Your task to perform on an android device: Go to Google maps Image 0: 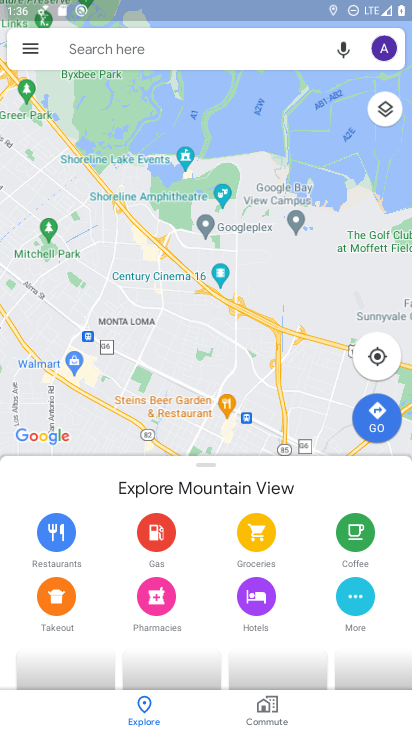
Step 0: press home button
Your task to perform on an android device: Go to Google maps Image 1: 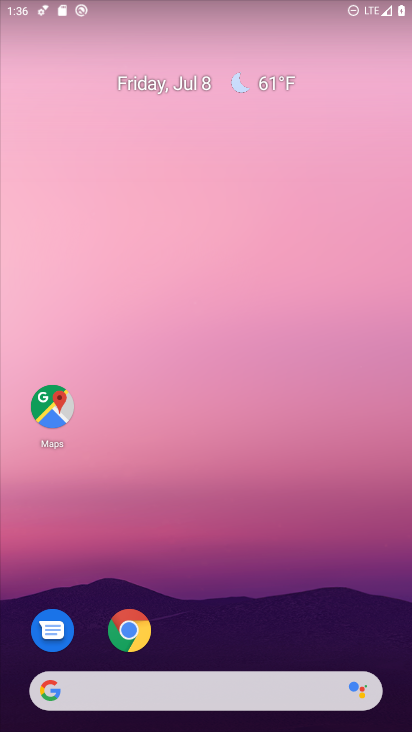
Step 1: drag from (391, 643) to (293, 153)
Your task to perform on an android device: Go to Google maps Image 2: 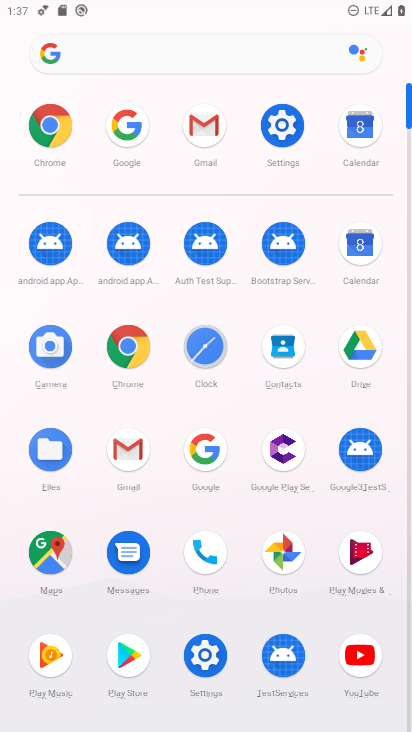
Step 2: click (50, 542)
Your task to perform on an android device: Go to Google maps Image 3: 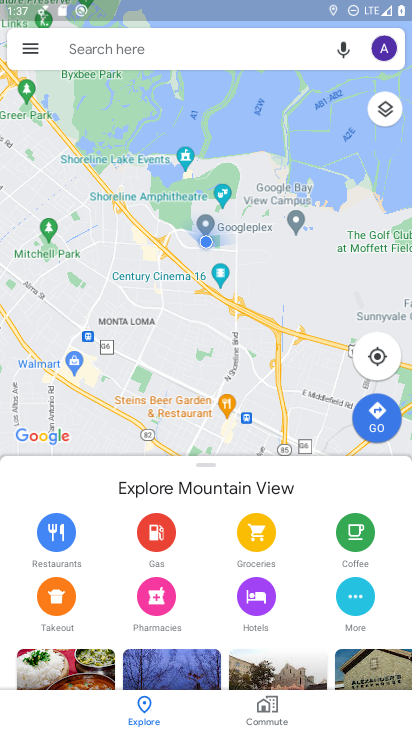
Step 3: task complete